Your task to perform on an android device: change timer sound Image 0: 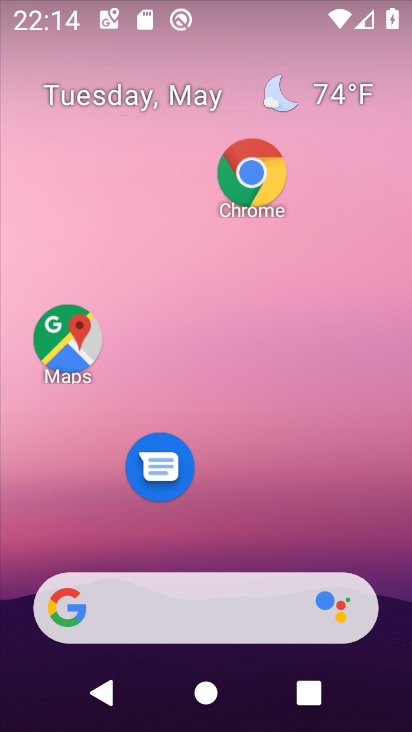
Step 0: drag from (349, 517) to (367, 126)
Your task to perform on an android device: change timer sound Image 1: 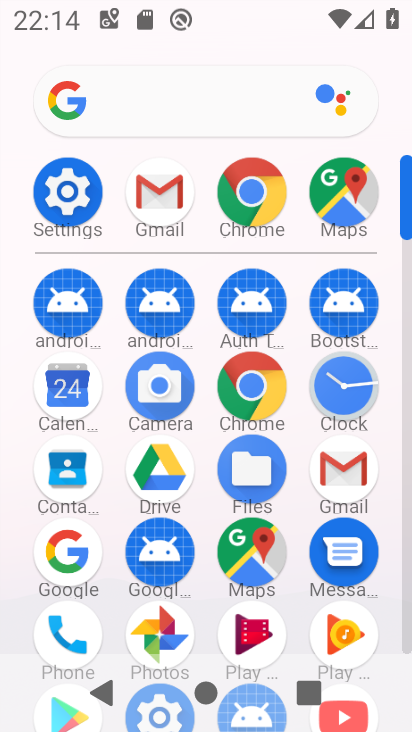
Step 1: click (349, 402)
Your task to perform on an android device: change timer sound Image 2: 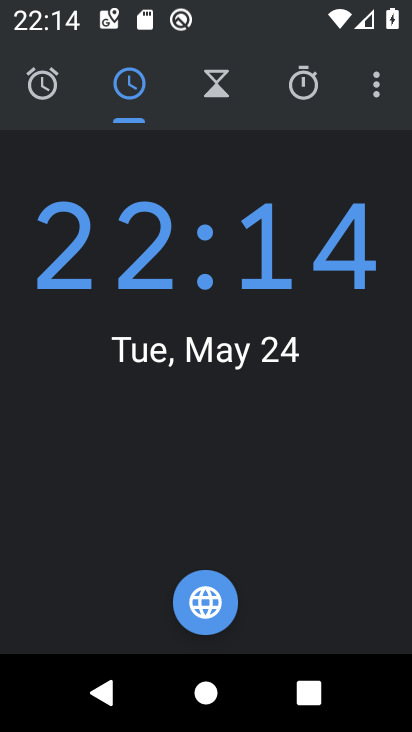
Step 2: click (379, 98)
Your task to perform on an android device: change timer sound Image 3: 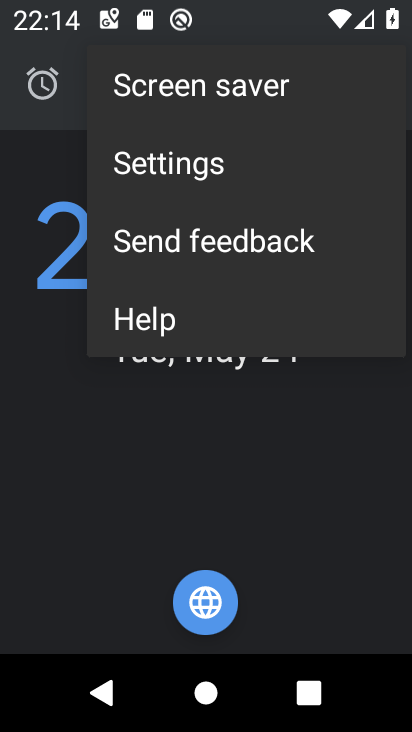
Step 3: click (220, 178)
Your task to perform on an android device: change timer sound Image 4: 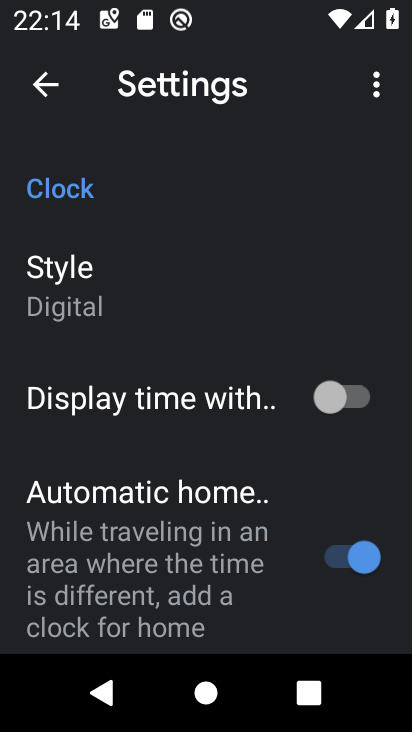
Step 4: drag from (167, 538) to (226, 286)
Your task to perform on an android device: change timer sound Image 5: 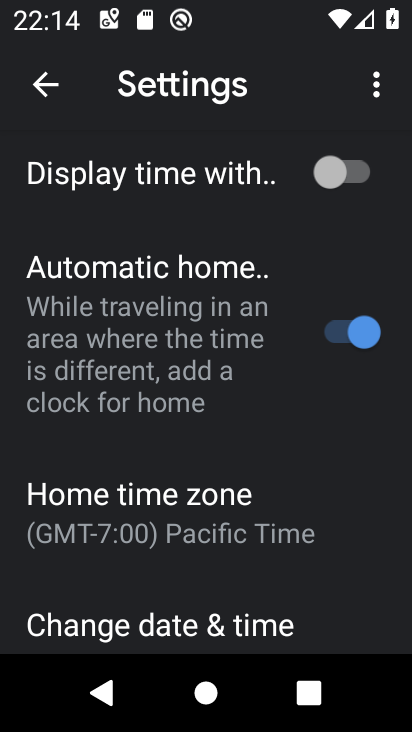
Step 5: drag from (200, 514) to (233, 291)
Your task to perform on an android device: change timer sound Image 6: 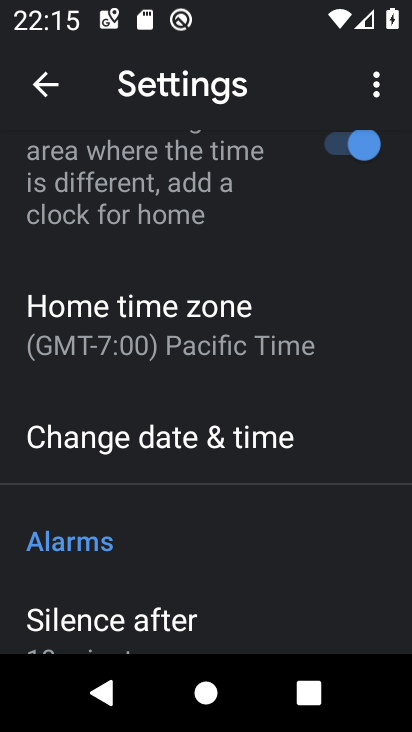
Step 6: drag from (196, 544) to (210, 267)
Your task to perform on an android device: change timer sound Image 7: 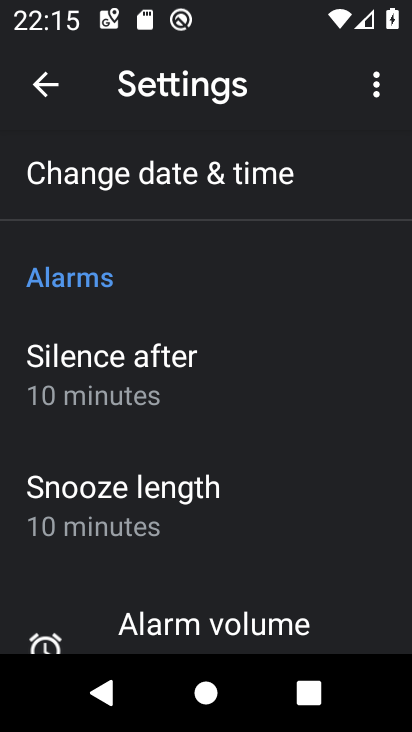
Step 7: drag from (196, 452) to (236, 203)
Your task to perform on an android device: change timer sound Image 8: 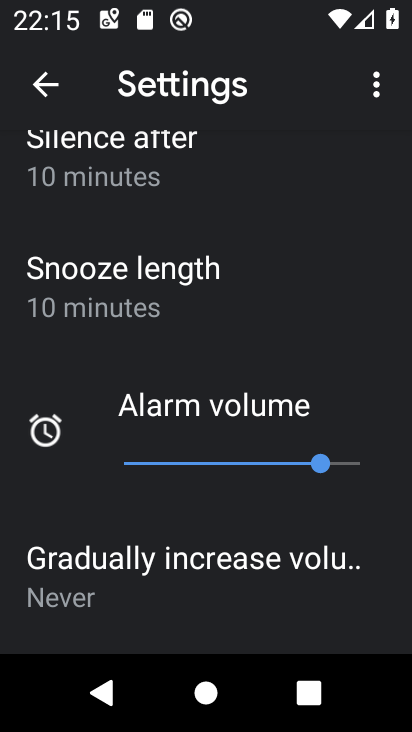
Step 8: drag from (205, 502) to (260, 265)
Your task to perform on an android device: change timer sound Image 9: 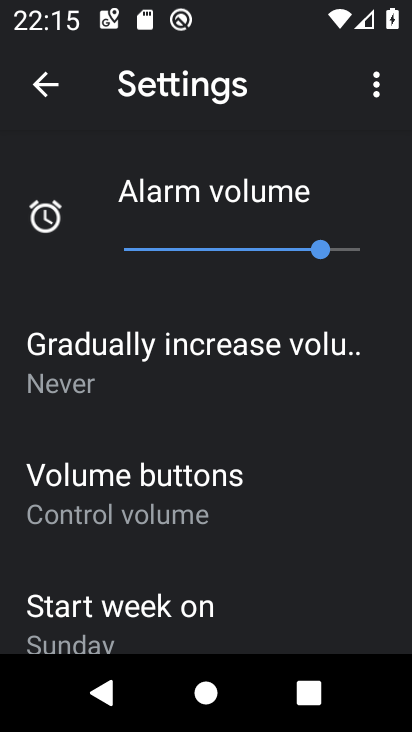
Step 9: drag from (208, 568) to (278, 300)
Your task to perform on an android device: change timer sound Image 10: 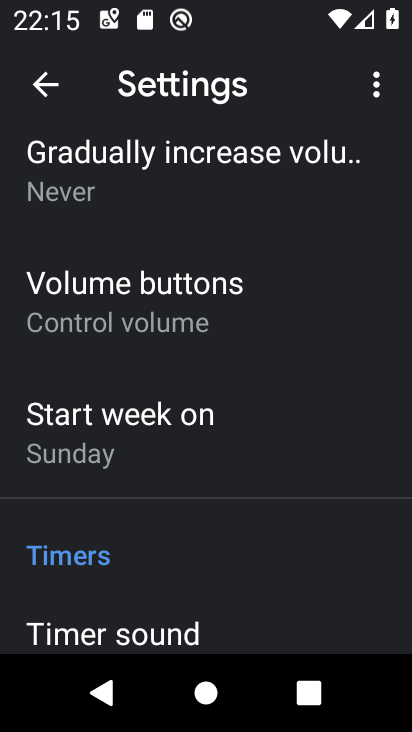
Step 10: drag from (208, 502) to (244, 298)
Your task to perform on an android device: change timer sound Image 11: 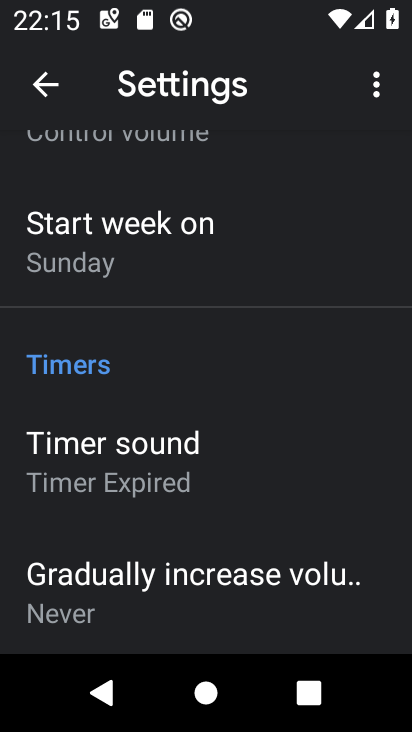
Step 11: click (176, 460)
Your task to perform on an android device: change timer sound Image 12: 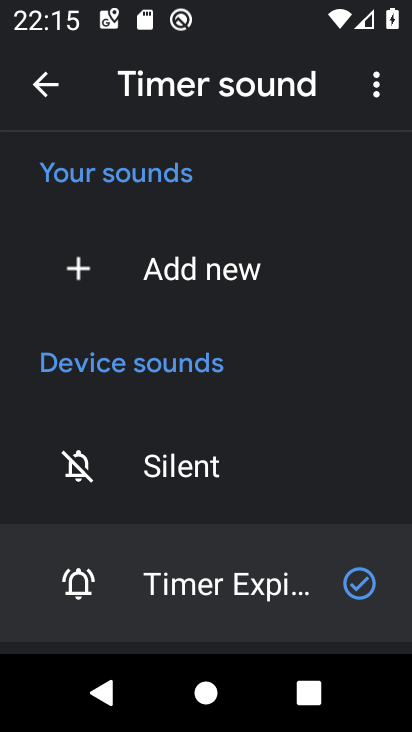
Step 12: drag from (172, 525) to (259, 243)
Your task to perform on an android device: change timer sound Image 13: 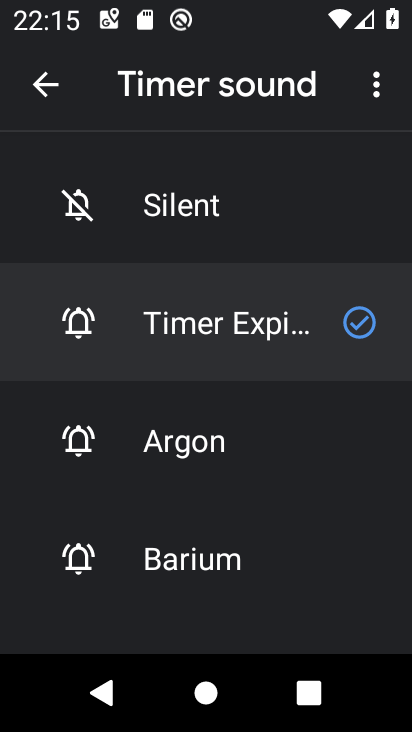
Step 13: click (192, 447)
Your task to perform on an android device: change timer sound Image 14: 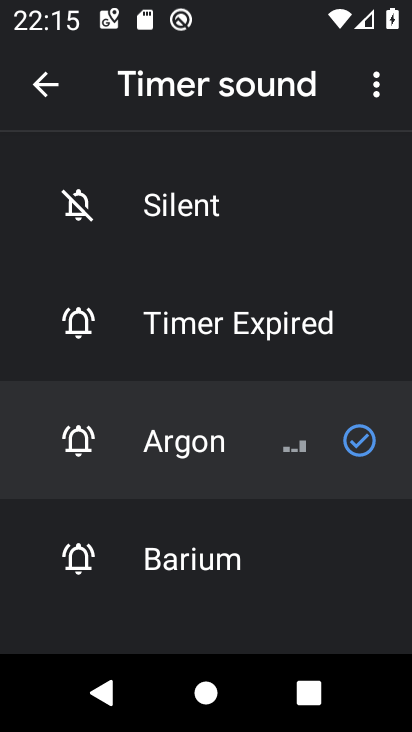
Step 14: task complete